Your task to perform on an android device: set the stopwatch Image 0: 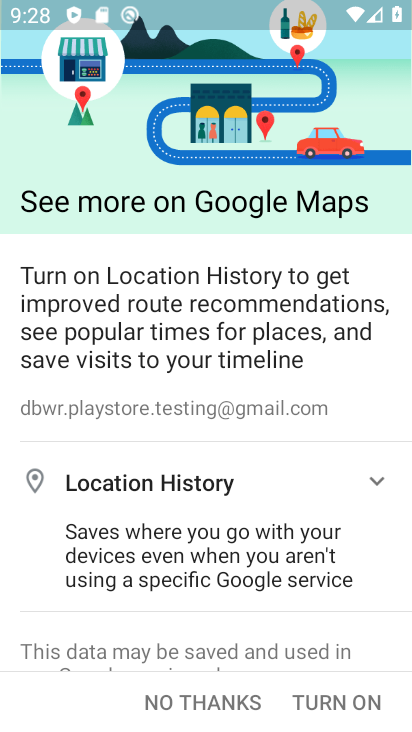
Step 0: press home button
Your task to perform on an android device: set the stopwatch Image 1: 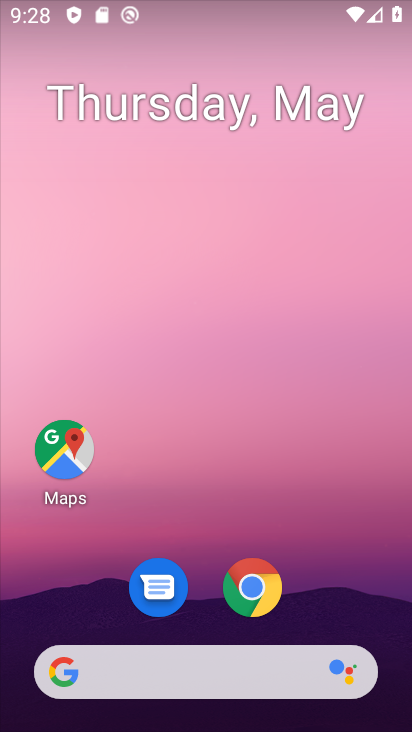
Step 1: drag from (309, 645) to (306, 12)
Your task to perform on an android device: set the stopwatch Image 2: 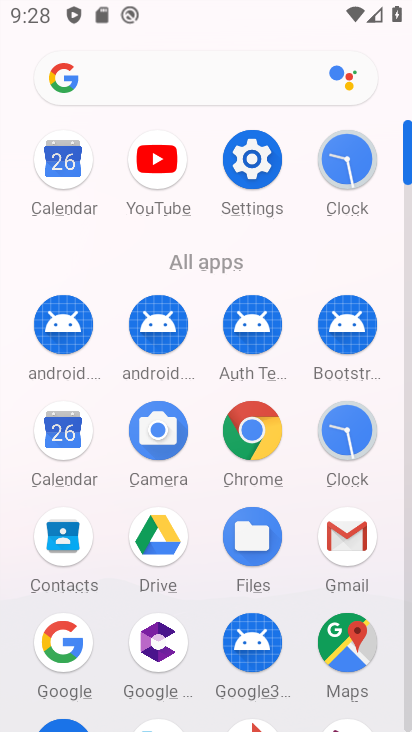
Step 2: click (340, 165)
Your task to perform on an android device: set the stopwatch Image 3: 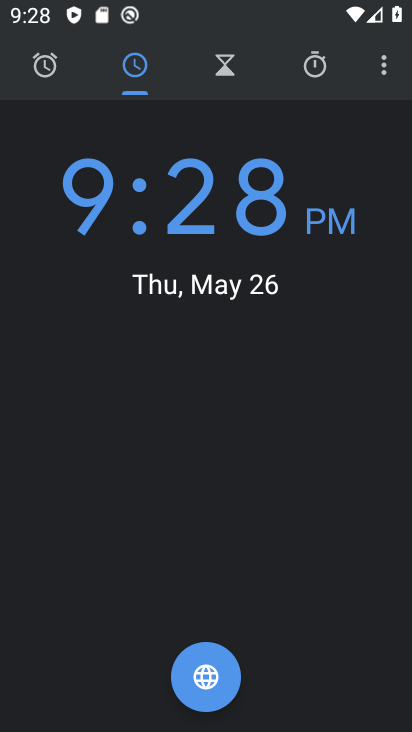
Step 3: click (314, 70)
Your task to perform on an android device: set the stopwatch Image 4: 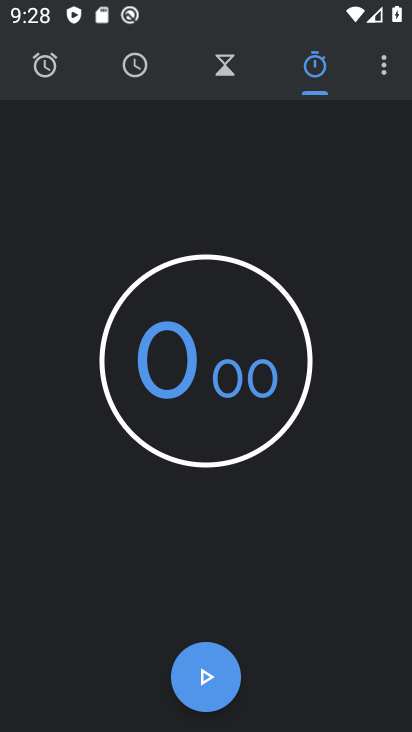
Step 4: click (215, 680)
Your task to perform on an android device: set the stopwatch Image 5: 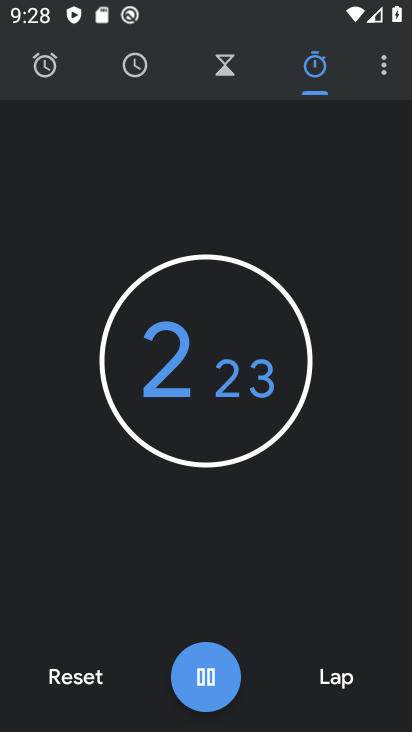
Step 5: click (210, 679)
Your task to perform on an android device: set the stopwatch Image 6: 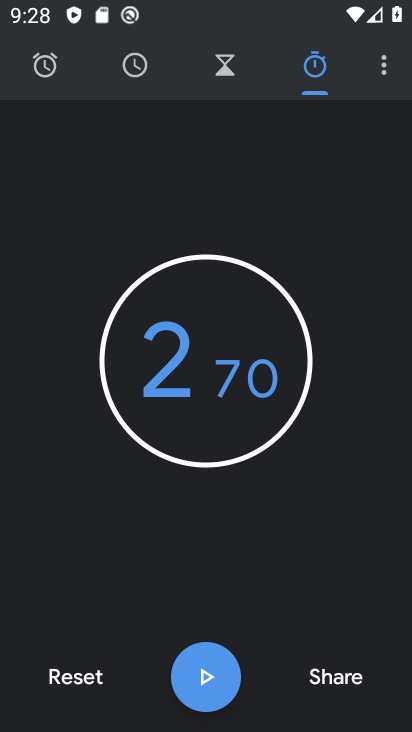
Step 6: task complete